Your task to perform on an android device: open app "Upside-Cash back on gas & food" (install if not already installed) Image 0: 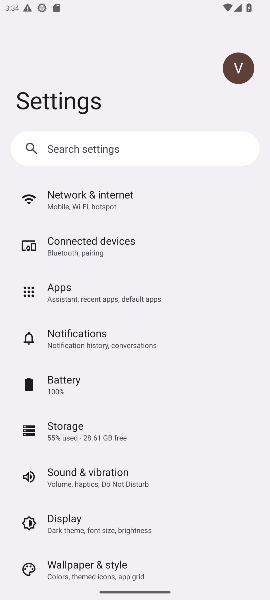
Step 0: press home button
Your task to perform on an android device: open app "Upside-Cash back on gas & food" (install if not already installed) Image 1: 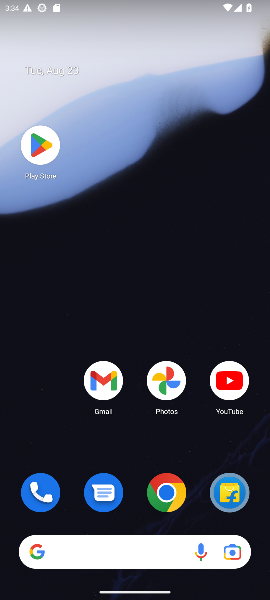
Step 1: click (47, 163)
Your task to perform on an android device: open app "Upside-Cash back on gas & food" (install if not already installed) Image 2: 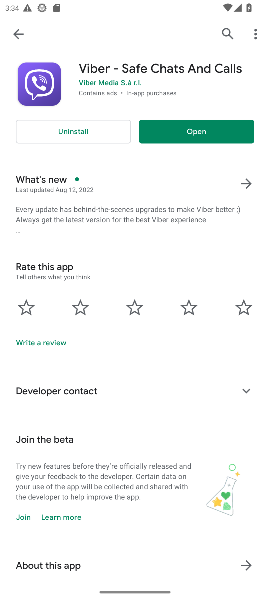
Step 2: click (236, 33)
Your task to perform on an android device: open app "Upside-Cash back on gas & food" (install if not already installed) Image 3: 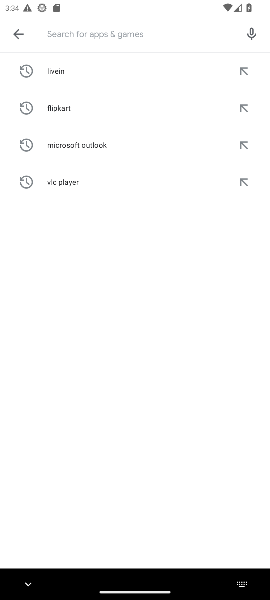
Step 3: type "upside"
Your task to perform on an android device: open app "Upside-Cash back on gas & food" (install if not already installed) Image 4: 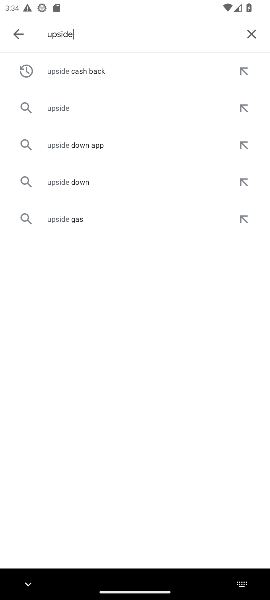
Step 4: click (63, 70)
Your task to perform on an android device: open app "Upside-Cash back on gas & food" (install if not already installed) Image 5: 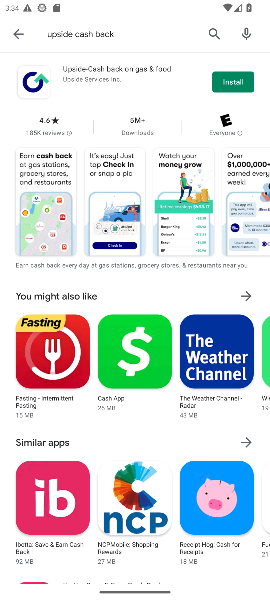
Step 5: click (209, 86)
Your task to perform on an android device: open app "Upside-Cash back on gas & food" (install if not already installed) Image 6: 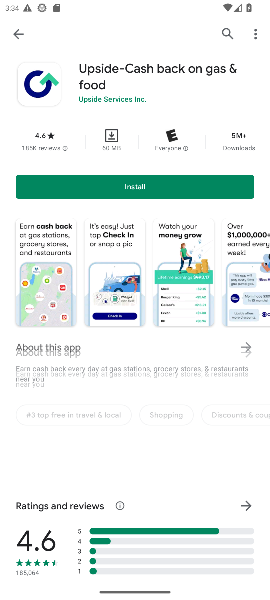
Step 6: task complete